Your task to perform on an android device: search for starred emails in the gmail app Image 0: 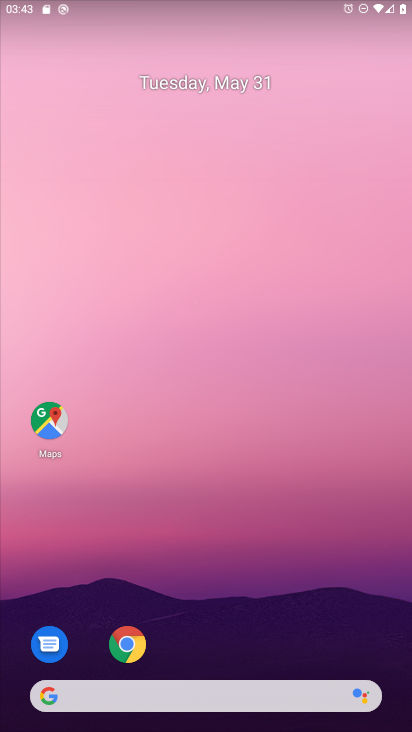
Step 0: drag from (278, 588) to (263, 177)
Your task to perform on an android device: search for starred emails in the gmail app Image 1: 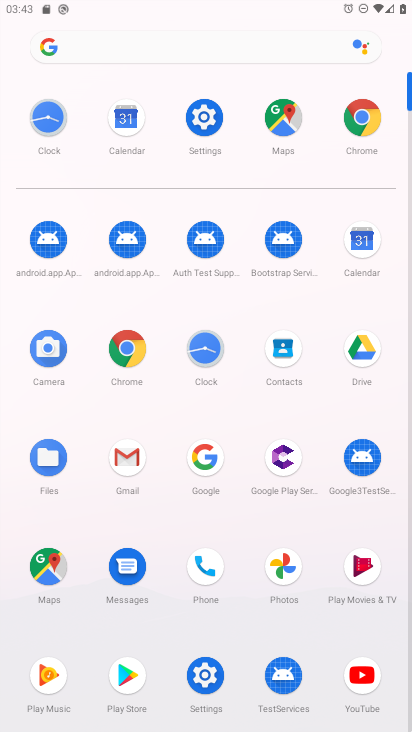
Step 1: click (130, 458)
Your task to perform on an android device: search for starred emails in the gmail app Image 2: 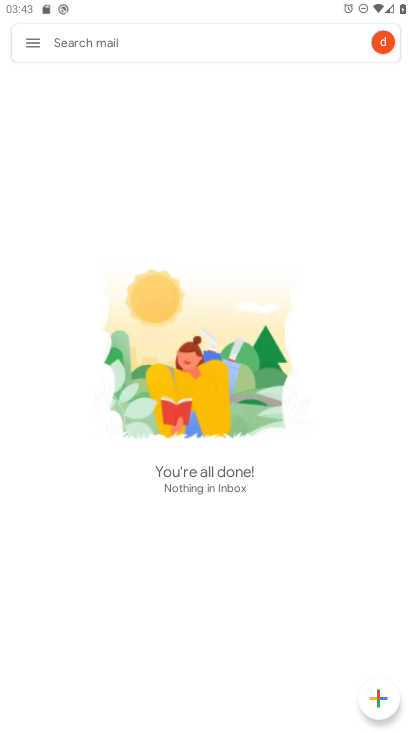
Step 2: click (30, 44)
Your task to perform on an android device: search for starred emails in the gmail app Image 3: 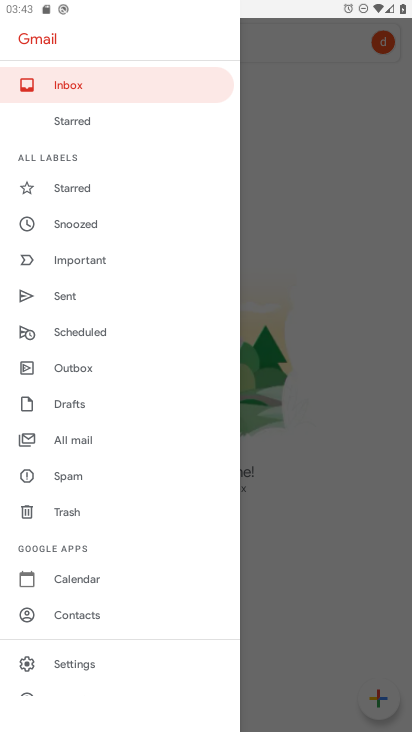
Step 3: click (72, 186)
Your task to perform on an android device: search for starred emails in the gmail app Image 4: 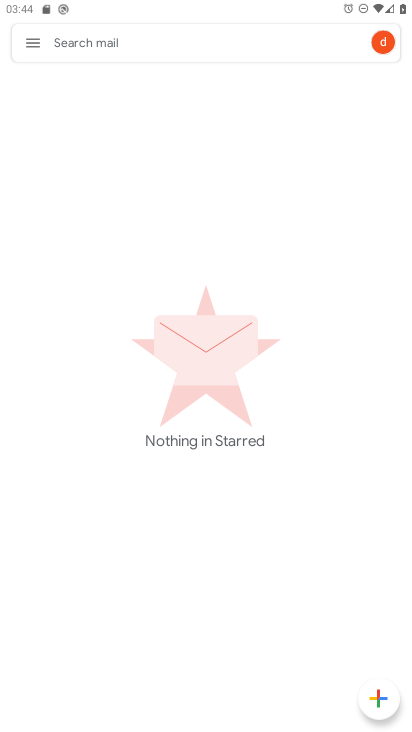
Step 4: task complete